Your task to perform on an android device: add a contact Image 0: 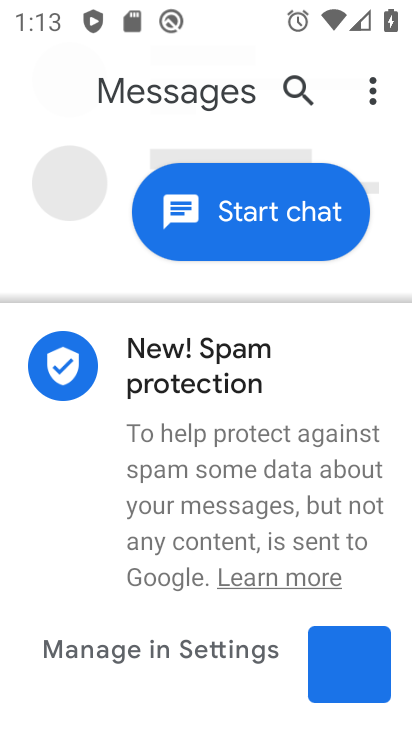
Step 0: press home button
Your task to perform on an android device: add a contact Image 1: 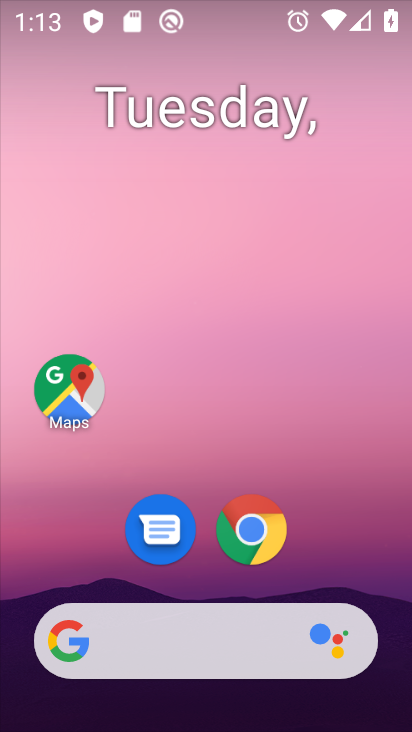
Step 1: drag from (381, 682) to (255, 154)
Your task to perform on an android device: add a contact Image 2: 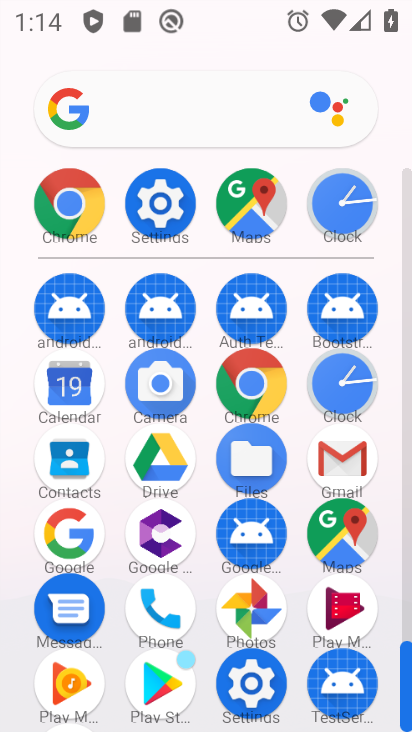
Step 2: click (78, 450)
Your task to perform on an android device: add a contact Image 3: 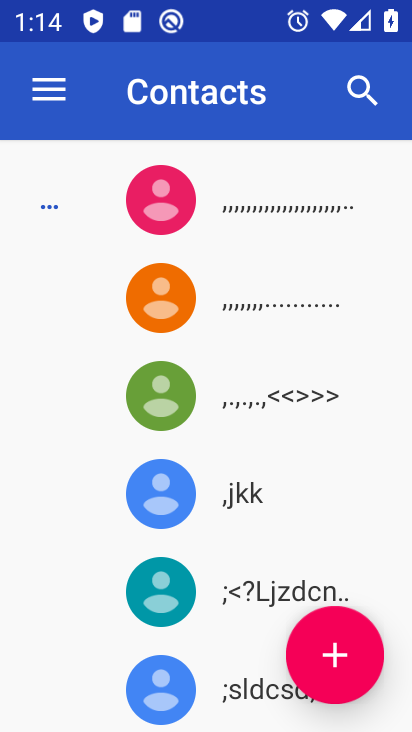
Step 3: click (330, 639)
Your task to perform on an android device: add a contact Image 4: 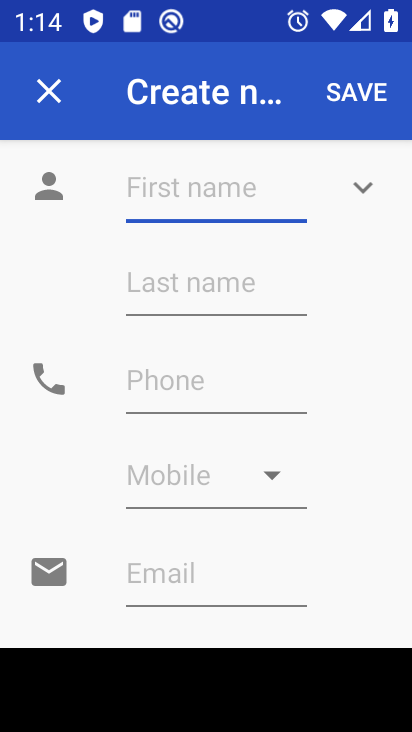
Step 4: type "napis"
Your task to perform on an android device: add a contact Image 5: 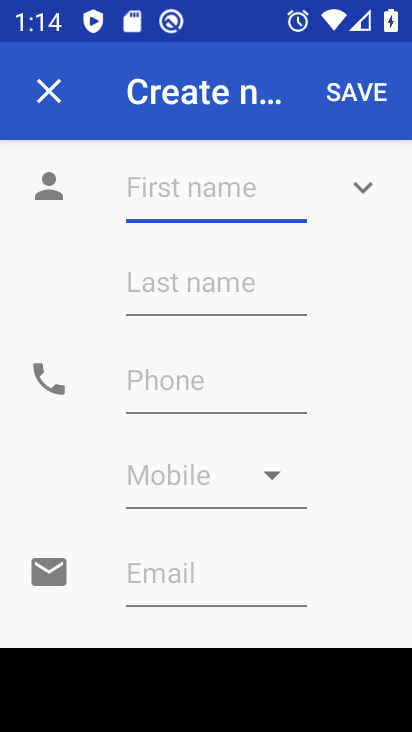
Step 5: click (365, 104)
Your task to perform on an android device: add a contact Image 6: 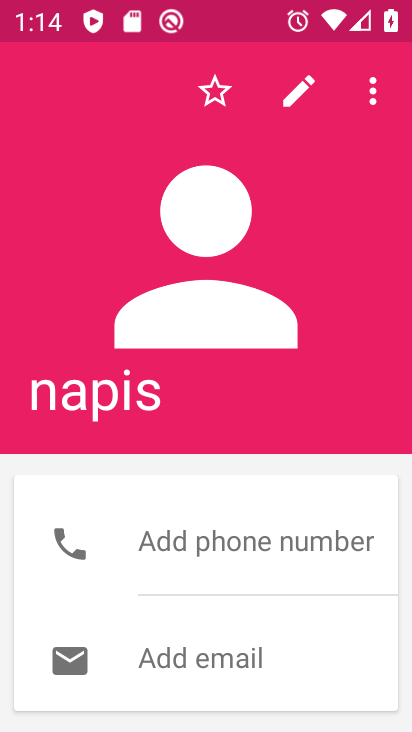
Step 6: task complete